Your task to perform on an android device: Search for a cheap bike on Walmart Image 0: 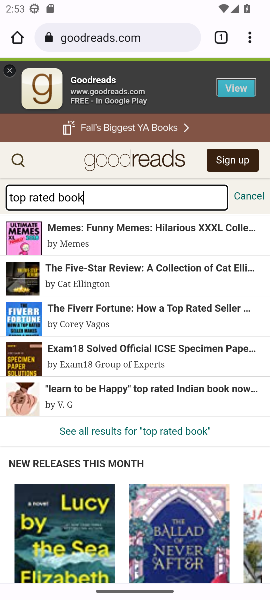
Step 0: press home button
Your task to perform on an android device: Search for a cheap bike on Walmart Image 1: 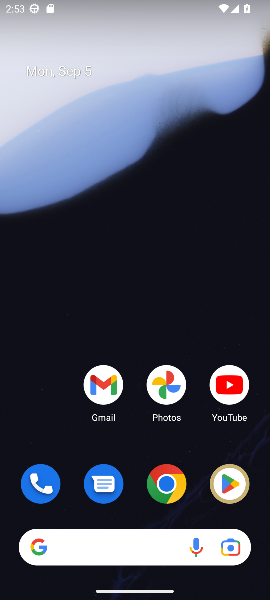
Step 1: click (171, 475)
Your task to perform on an android device: Search for a cheap bike on Walmart Image 2: 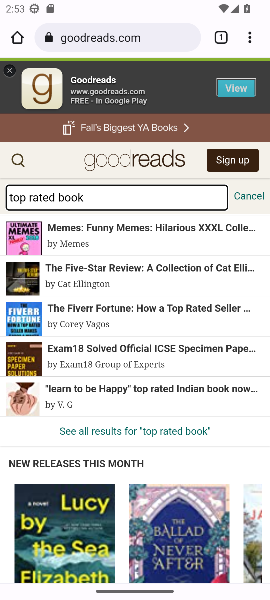
Step 2: click (150, 38)
Your task to perform on an android device: Search for a cheap bike on Walmart Image 3: 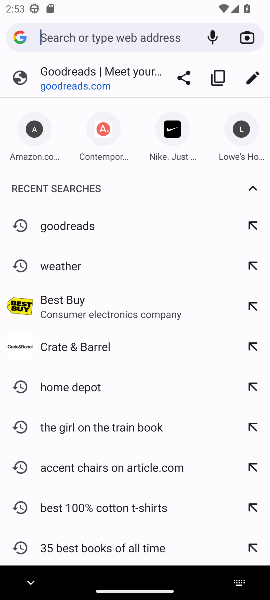
Step 3: type " Walmart"
Your task to perform on an android device: Search for a cheap bike on Walmart Image 4: 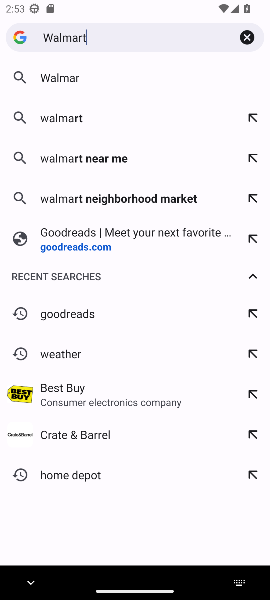
Step 4: press enter
Your task to perform on an android device: Search for a cheap bike on Walmart Image 5: 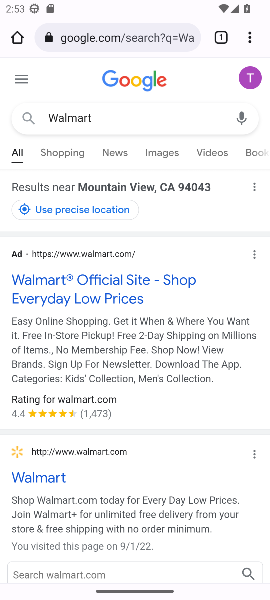
Step 5: click (106, 277)
Your task to perform on an android device: Search for a cheap bike on Walmart Image 6: 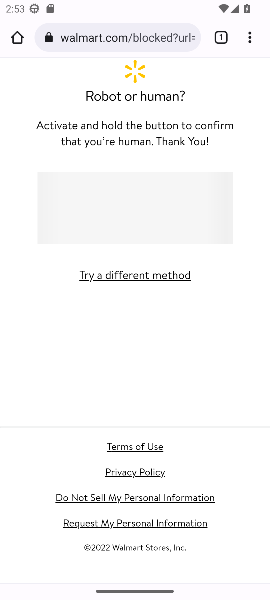
Step 6: drag from (201, 83) to (174, 438)
Your task to perform on an android device: Search for a cheap bike on Walmart Image 7: 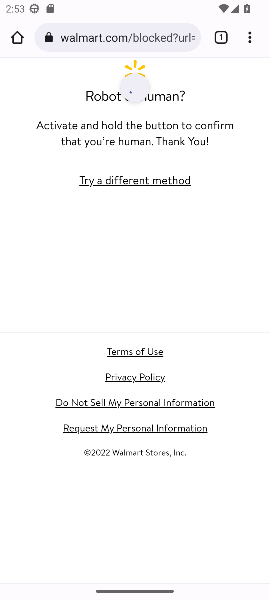
Step 7: drag from (97, 443) to (204, 121)
Your task to perform on an android device: Search for a cheap bike on Walmart Image 8: 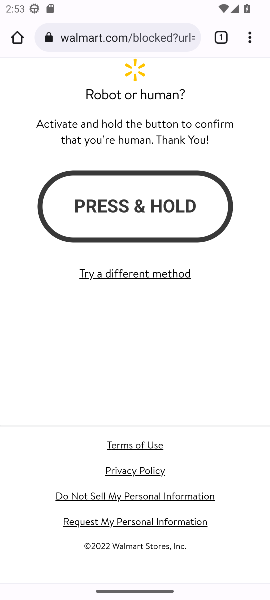
Step 8: press back button
Your task to perform on an android device: Search for a cheap bike on Walmart Image 9: 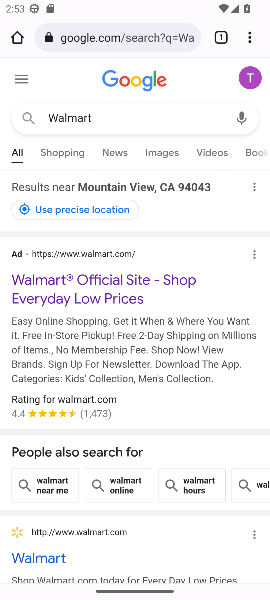
Step 9: drag from (123, 494) to (187, 300)
Your task to perform on an android device: Search for a cheap bike on Walmart Image 10: 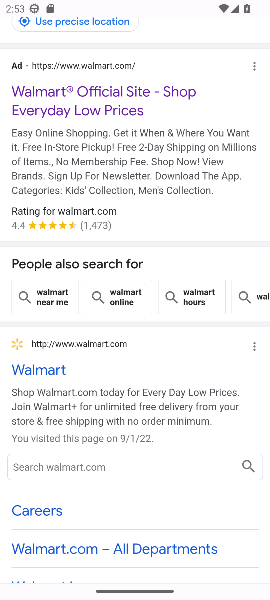
Step 10: click (46, 369)
Your task to perform on an android device: Search for a cheap bike on Walmart Image 11: 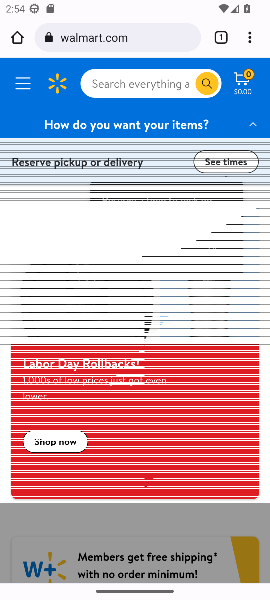
Step 11: click (123, 83)
Your task to perform on an android device: Search for a cheap bike on Walmart Image 12: 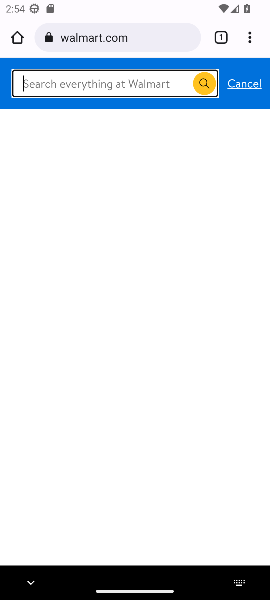
Step 12: type "cheap bike"
Your task to perform on an android device: Search for a cheap bike on Walmart Image 13: 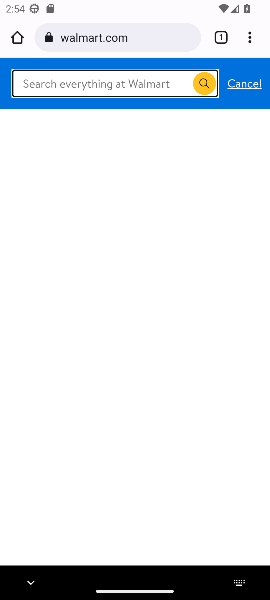
Step 13: press enter
Your task to perform on an android device: Search for a cheap bike on Walmart Image 14: 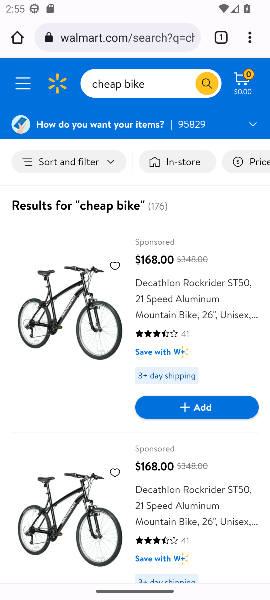
Step 14: task complete